Your task to perform on an android device: Toggle the flashlight Image 0: 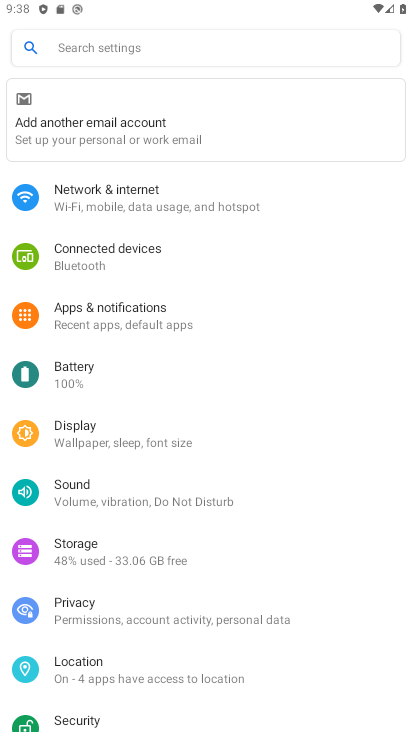
Step 0: press home button
Your task to perform on an android device: Toggle the flashlight Image 1: 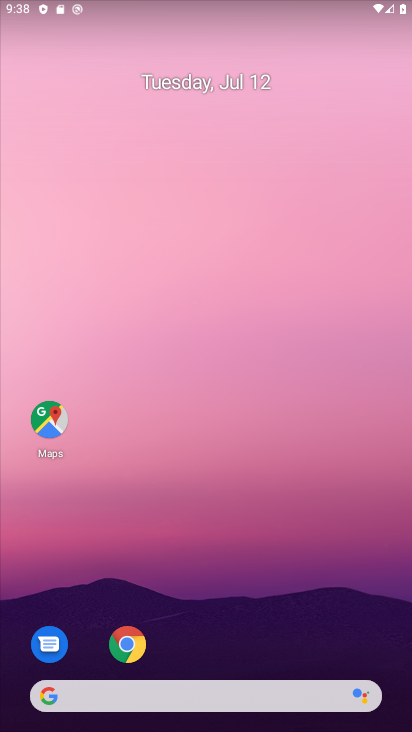
Step 1: task complete